Your task to perform on an android device: What's on my calendar today? Image 0: 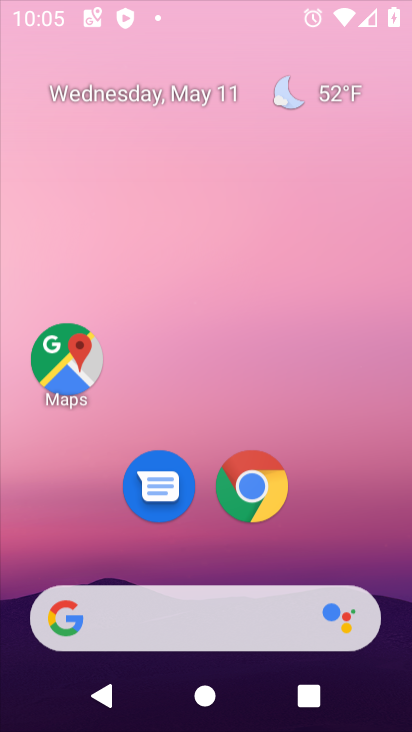
Step 0: click (195, 183)
Your task to perform on an android device: What's on my calendar today? Image 1: 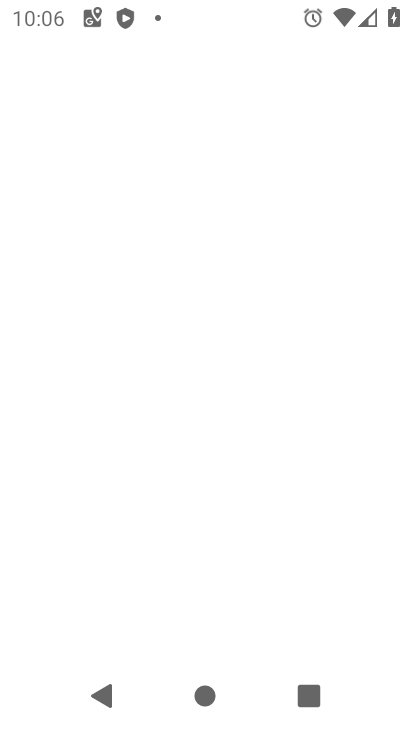
Step 1: press home button
Your task to perform on an android device: What's on my calendar today? Image 2: 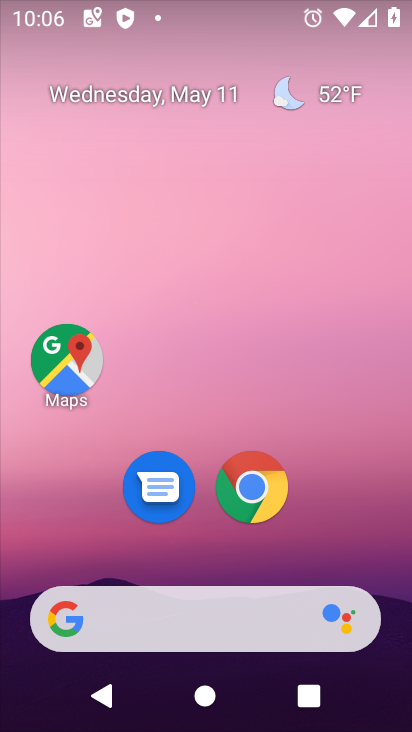
Step 2: drag from (210, 565) to (210, 179)
Your task to perform on an android device: What's on my calendar today? Image 3: 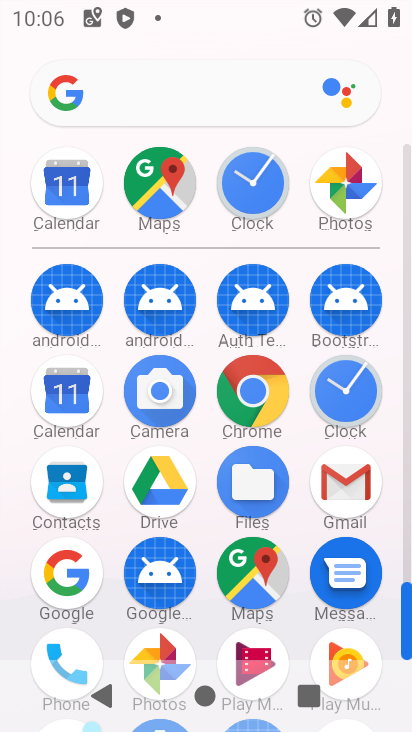
Step 3: click (54, 394)
Your task to perform on an android device: What's on my calendar today? Image 4: 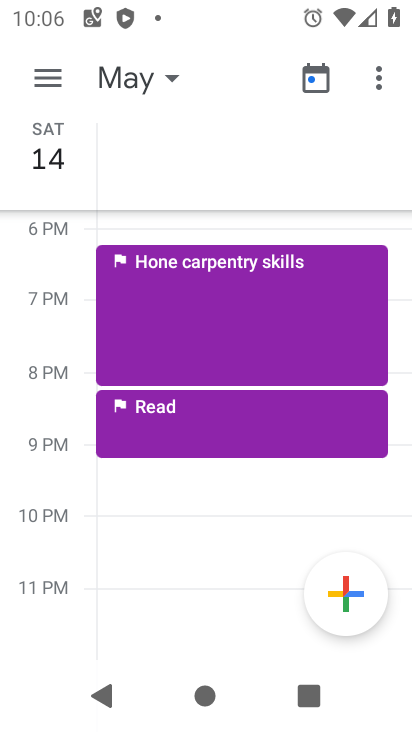
Step 4: click (154, 76)
Your task to perform on an android device: What's on my calendar today? Image 5: 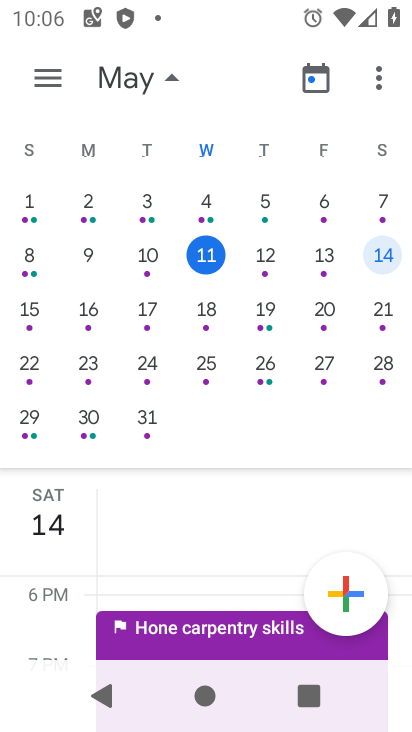
Step 5: click (214, 250)
Your task to perform on an android device: What's on my calendar today? Image 6: 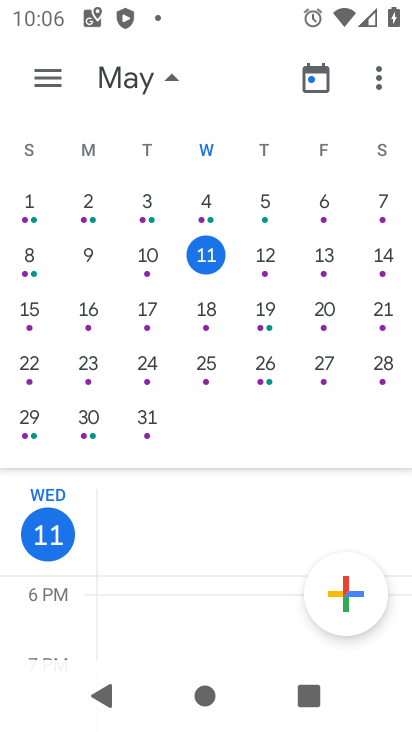
Step 6: task complete